Your task to perform on an android device: Open sound settings Image 0: 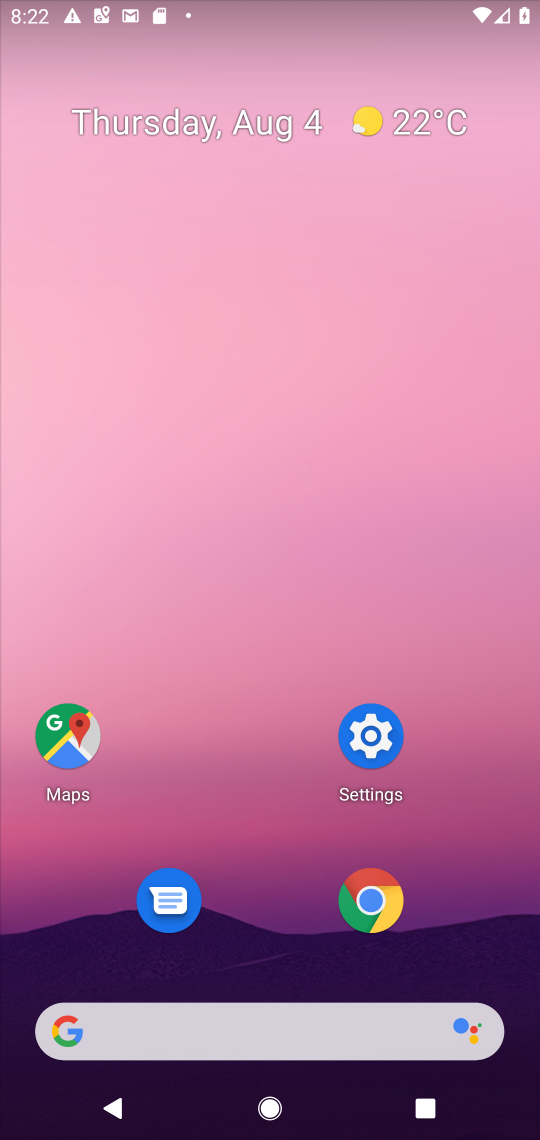
Step 0: click (375, 732)
Your task to perform on an android device: Open sound settings Image 1: 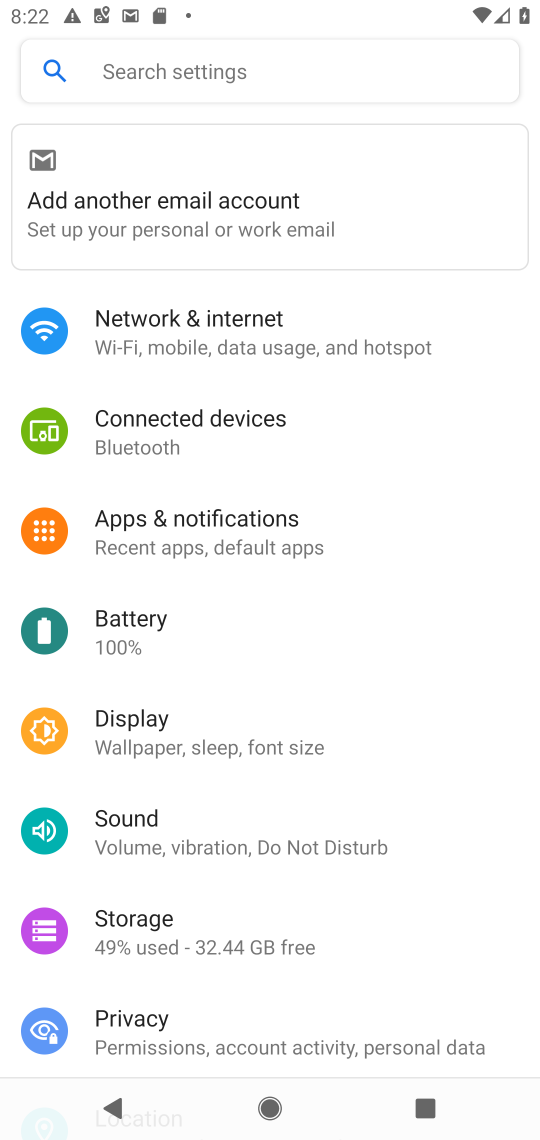
Step 1: click (166, 827)
Your task to perform on an android device: Open sound settings Image 2: 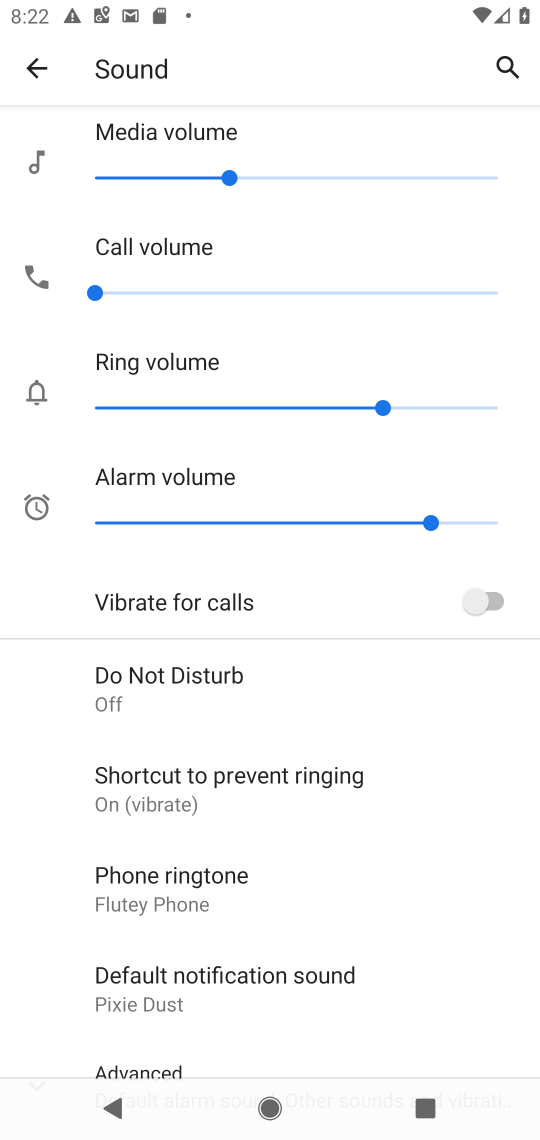
Step 2: task complete